Your task to perform on an android device: Play the last video I watched on Youtube Image 0: 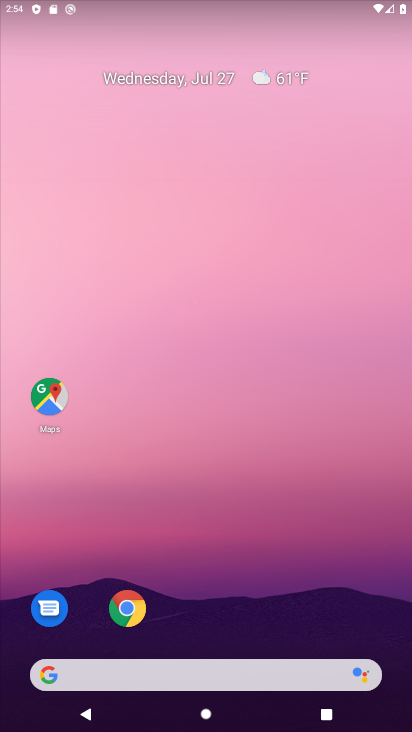
Step 0: drag from (279, 621) to (305, 4)
Your task to perform on an android device: Play the last video I watched on Youtube Image 1: 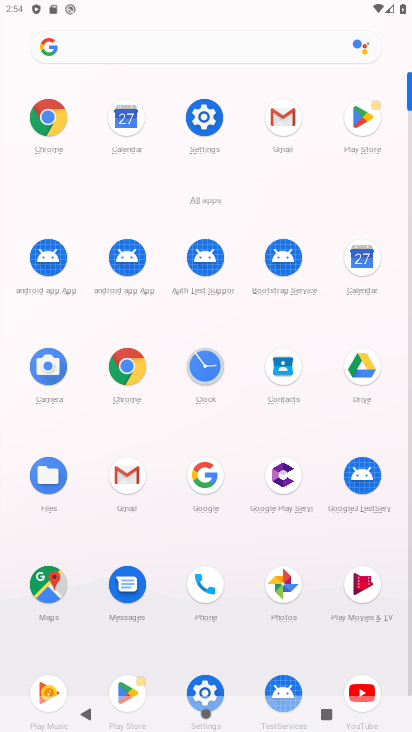
Step 1: click (363, 682)
Your task to perform on an android device: Play the last video I watched on Youtube Image 2: 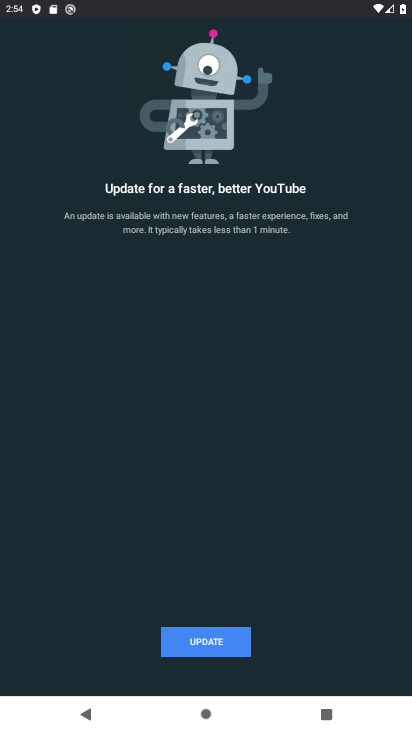
Step 2: click (230, 638)
Your task to perform on an android device: Play the last video I watched on Youtube Image 3: 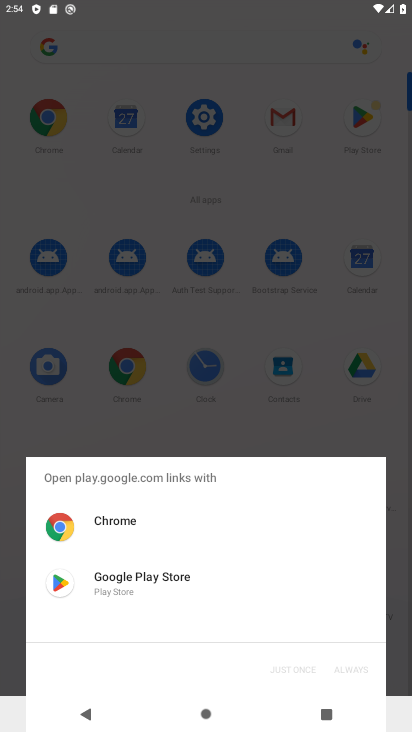
Step 3: click (90, 590)
Your task to perform on an android device: Play the last video I watched on Youtube Image 4: 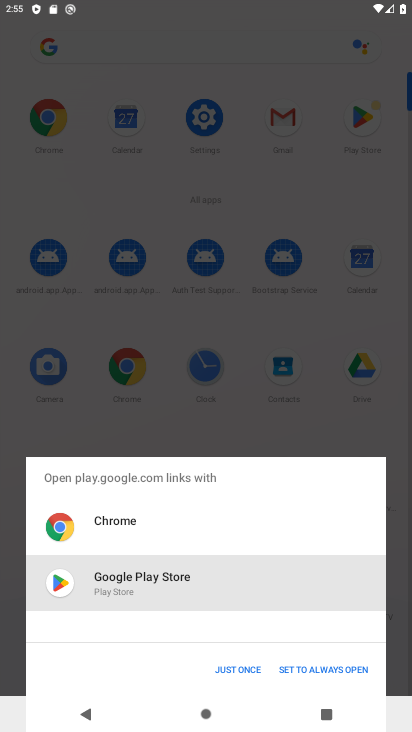
Step 4: click (246, 664)
Your task to perform on an android device: Play the last video I watched on Youtube Image 5: 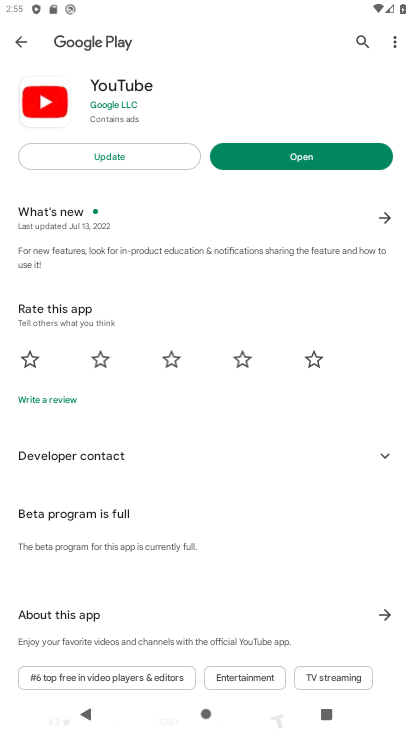
Step 5: click (104, 151)
Your task to perform on an android device: Play the last video I watched on Youtube Image 6: 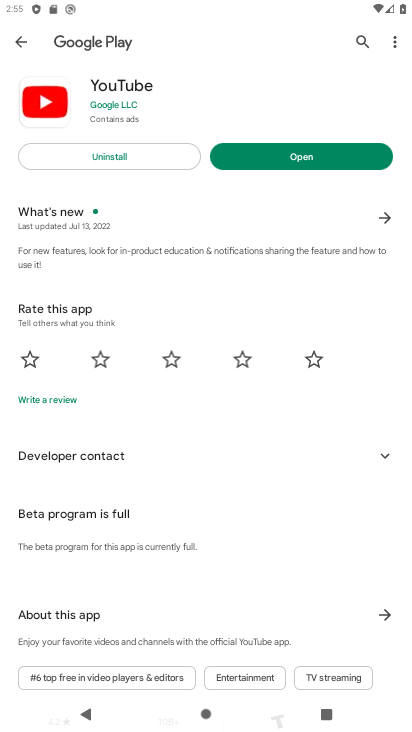
Step 6: click (345, 163)
Your task to perform on an android device: Play the last video I watched on Youtube Image 7: 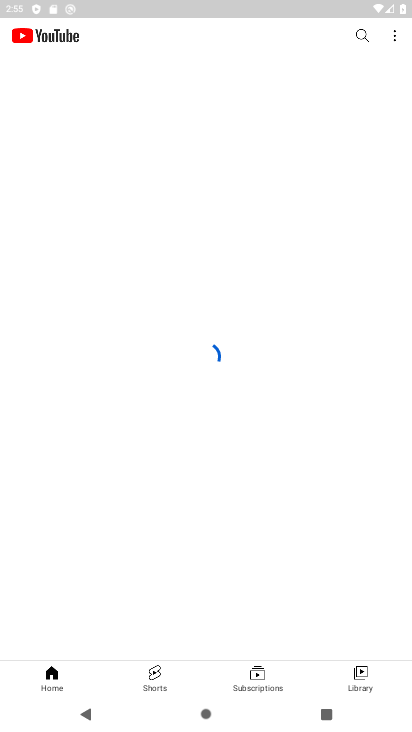
Step 7: click (366, 685)
Your task to perform on an android device: Play the last video I watched on Youtube Image 8: 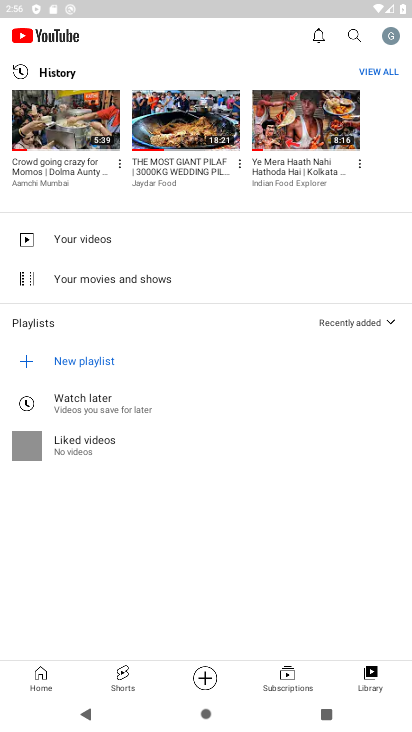
Step 8: click (54, 107)
Your task to perform on an android device: Play the last video I watched on Youtube Image 9: 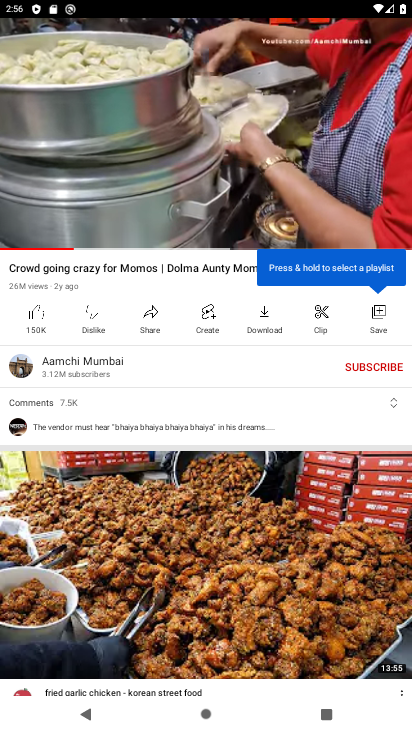
Step 9: task complete